Your task to perform on an android device: Open eBay Image 0: 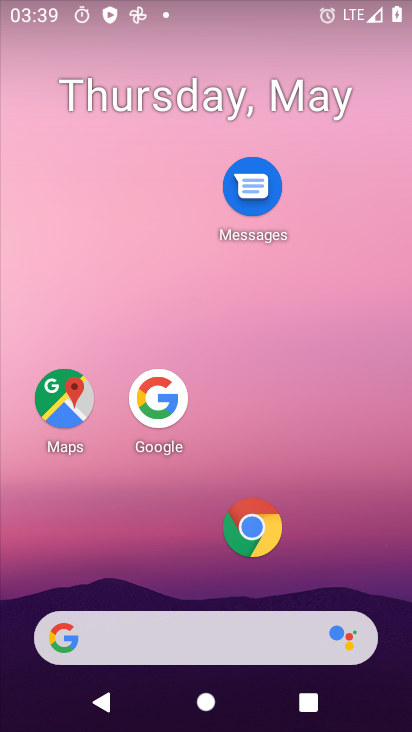
Step 0: drag from (178, 571) to (210, 180)
Your task to perform on an android device: Open eBay Image 1: 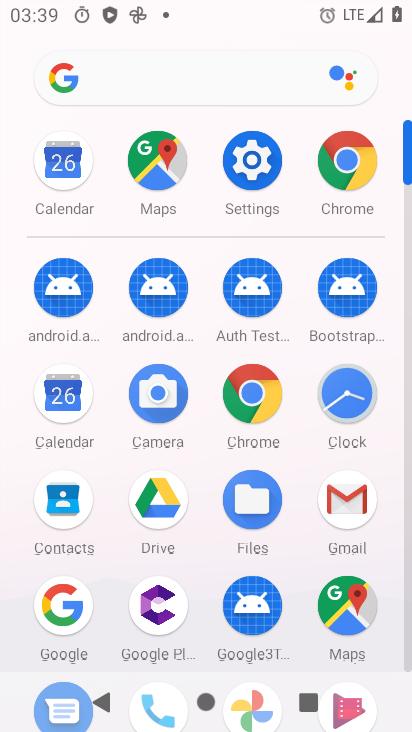
Step 1: click (116, 87)
Your task to perform on an android device: Open eBay Image 2: 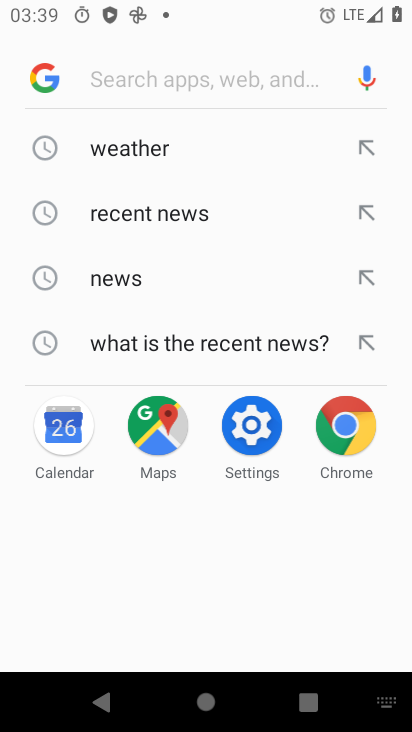
Step 2: type "ebay"
Your task to perform on an android device: Open eBay Image 3: 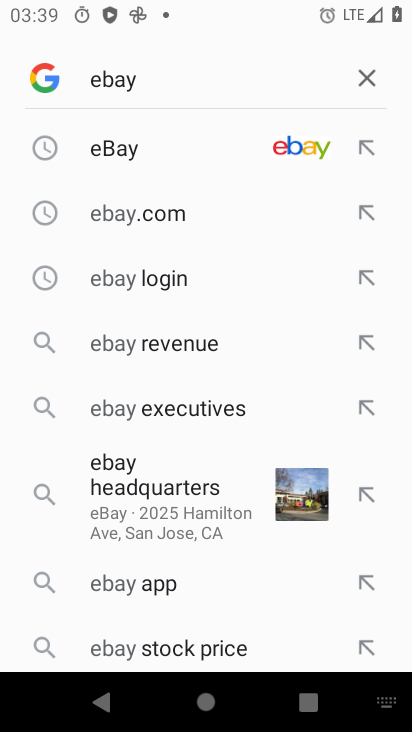
Step 3: click (156, 155)
Your task to perform on an android device: Open eBay Image 4: 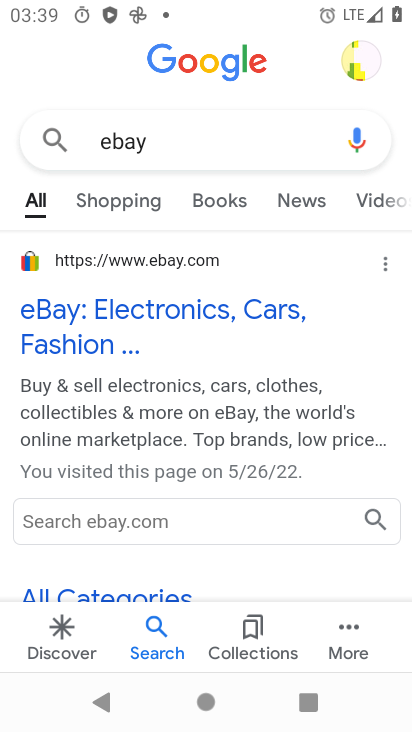
Step 4: click (91, 308)
Your task to perform on an android device: Open eBay Image 5: 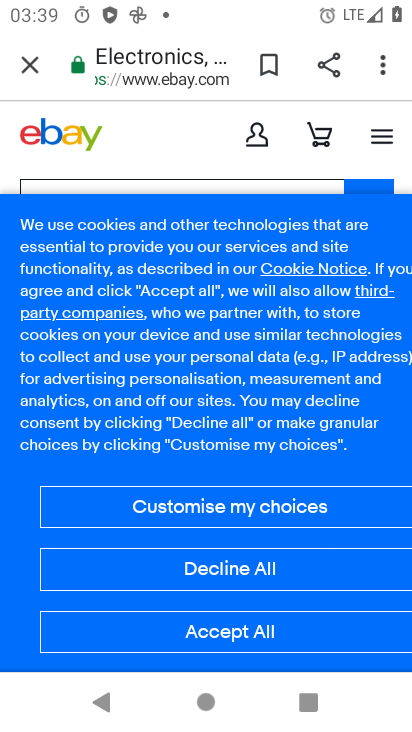
Step 5: task complete